Your task to perform on an android device: What is the recent news? Image 0: 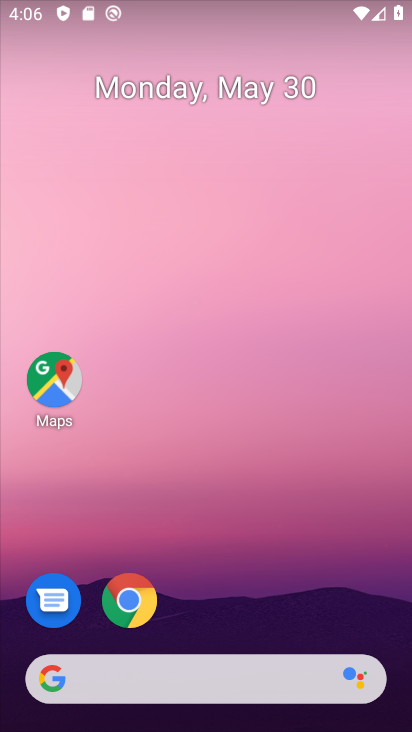
Step 0: drag from (265, 645) to (194, 163)
Your task to perform on an android device: What is the recent news? Image 1: 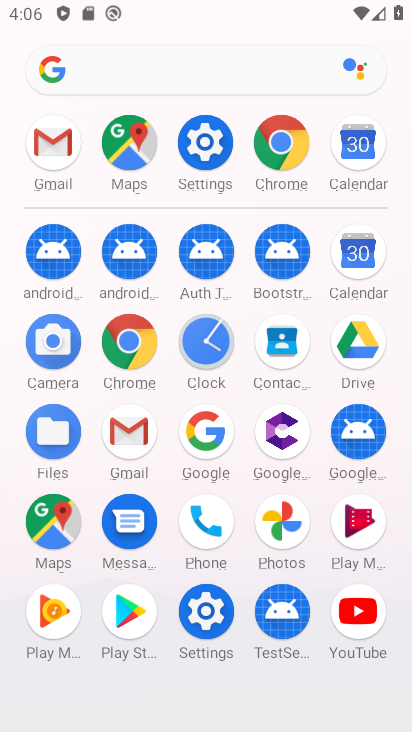
Step 1: click (209, 70)
Your task to perform on an android device: What is the recent news? Image 2: 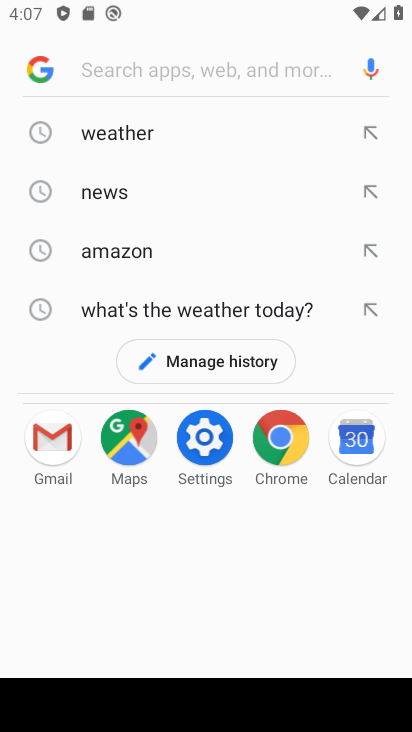
Step 2: type "recent news"
Your task to perform on an android device: What is the recent news? Image 3: 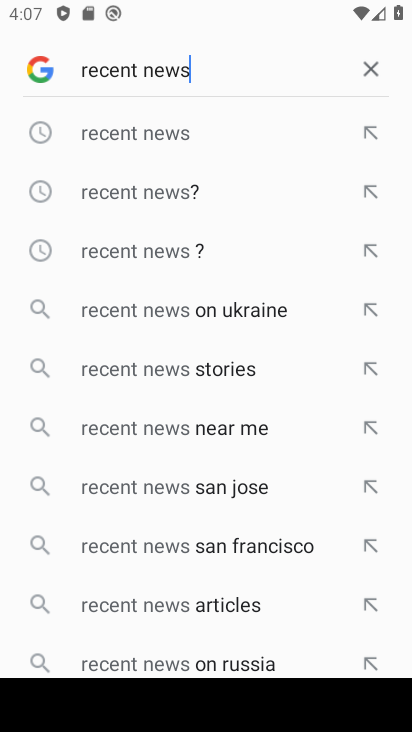
Step 3: click (165, 137)
Your task to perform on an android device: What is the recent news? Image 4: 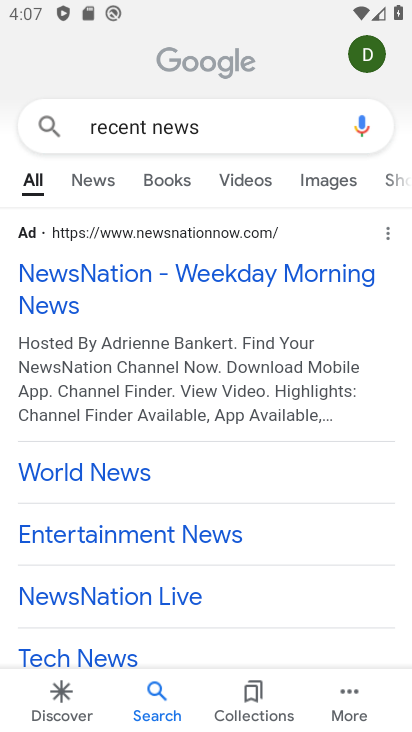
Step 4: click (176, 275)
Your task to perform on an android device: What is the recent news? Image 5: 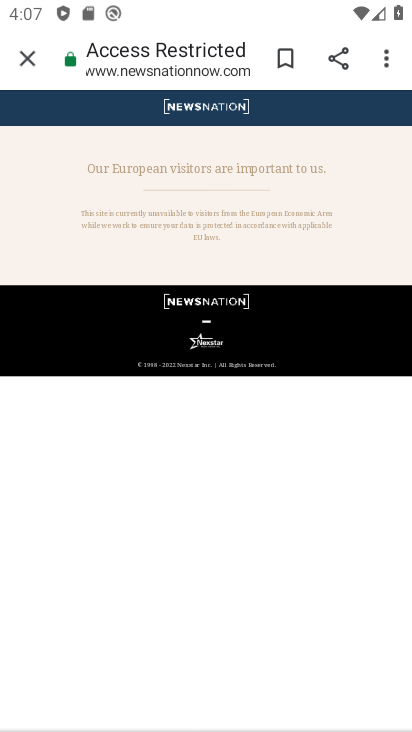
Step 5: task complete